Your task to perform on an android device: read, delete, or share a saved page in the chrome app Image 0: 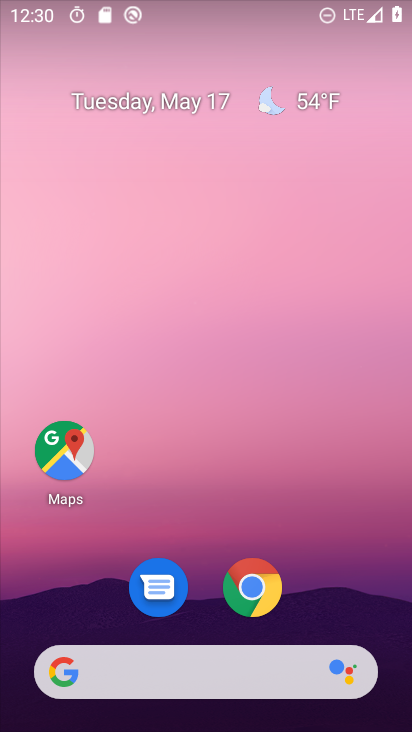
Step 0: drag from (182, 617) to (198, 155)
Your task to perform on an android device: read, delete, or share a saved page in the chrome app Image 1: 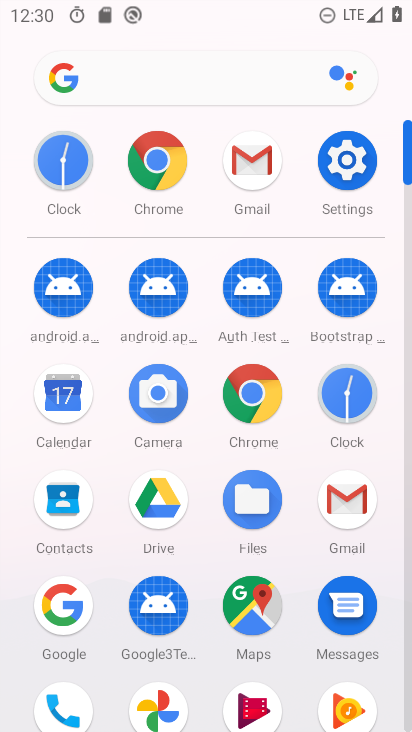
Step 1: drag from (203, 702) to (218, 346)
Your task to perform on an android device: read, delete, or share a saved page in the chrome app Image 2: 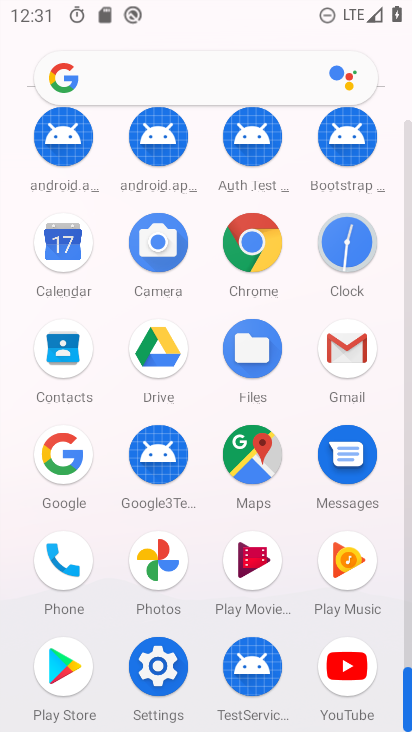
Step 2: click (246, 238)
Your task to perform on an android device: read, delete, or share a saved page in the chrome app Image 3: 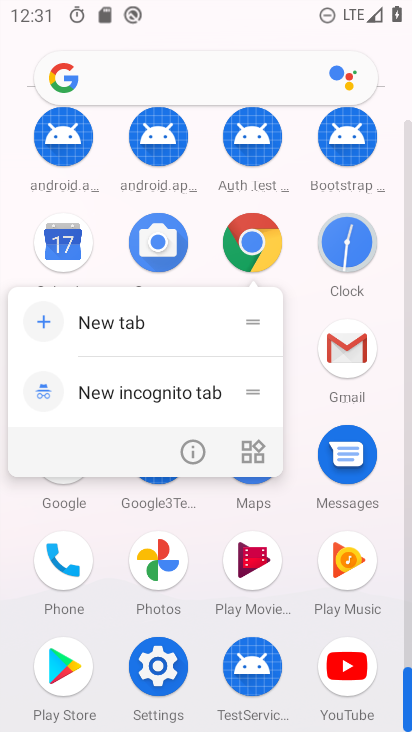
Step 3: click (189, 444)
Your task to perform on an android device: read, delete, or share a saved page in the chrome app Image 4: 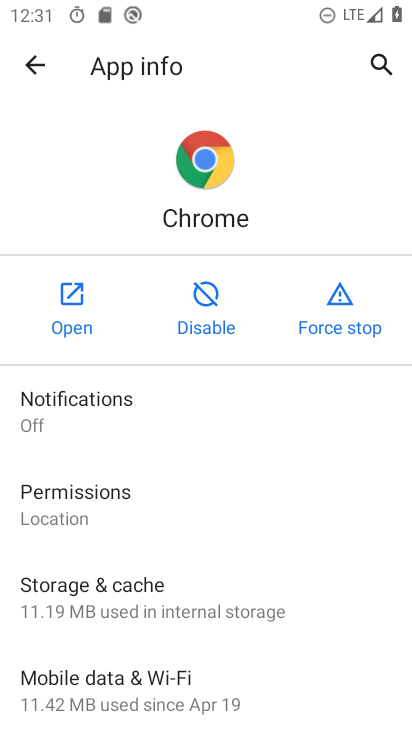
Step 4: click (65, 289)
Your task to perform on an android device: read, delete, or share a saved page in the chrome app Image 5: 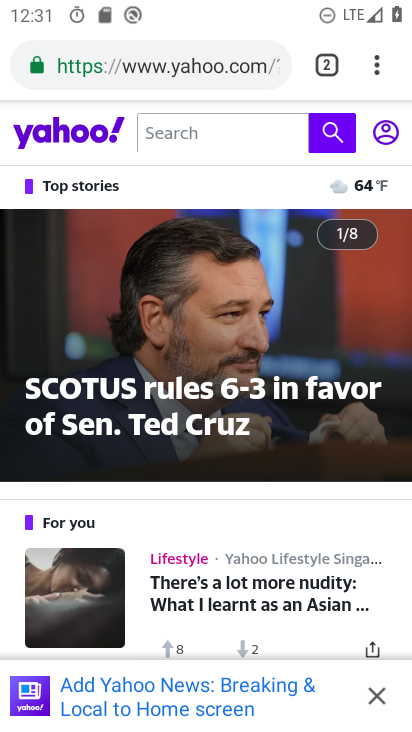
Step 5: drag from (272, 544) to (316, 298)
Your task to perform on an android device: read, delete, or share a saved page in the chrome app Image 6: 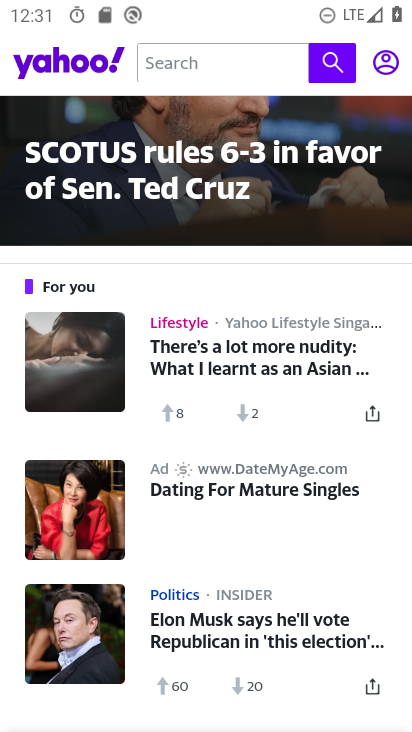
Step 6: drag from (273, 566) to (289, 441)
Your task to perform on an android device: read, delete, or share a saved page in the chrome app Image 7: 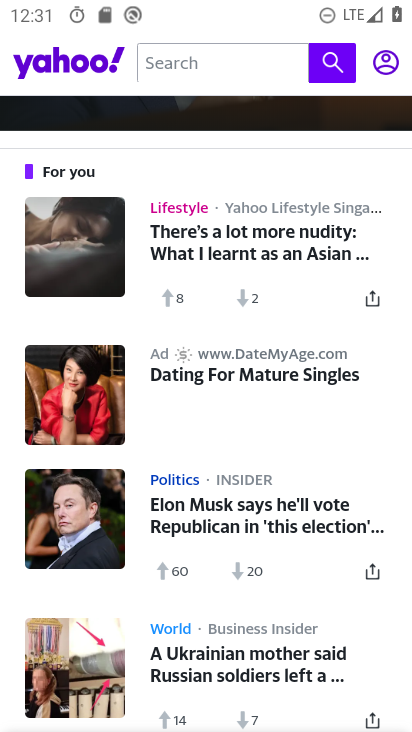
Step 7: drag from (249, 662) to (336, 333)
Your task to perform on an android device: read, delete, or share a saved page in the chrome app Image 8: 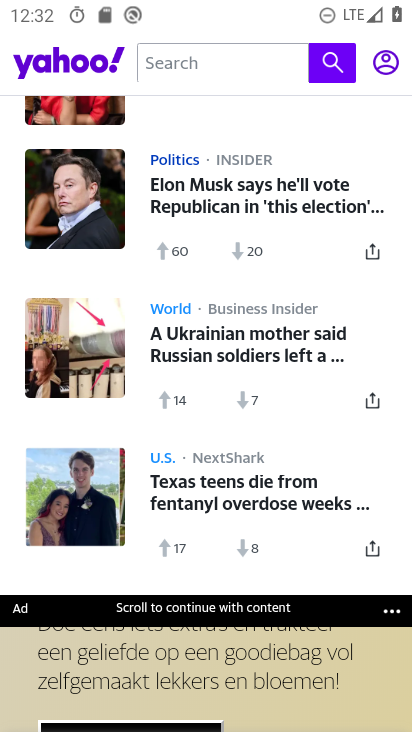
Step 8: drag from (216, 520) to (281, 198)
Your task to perform on an android device: read, delete, or share a saved page in the chrome app Image 9: 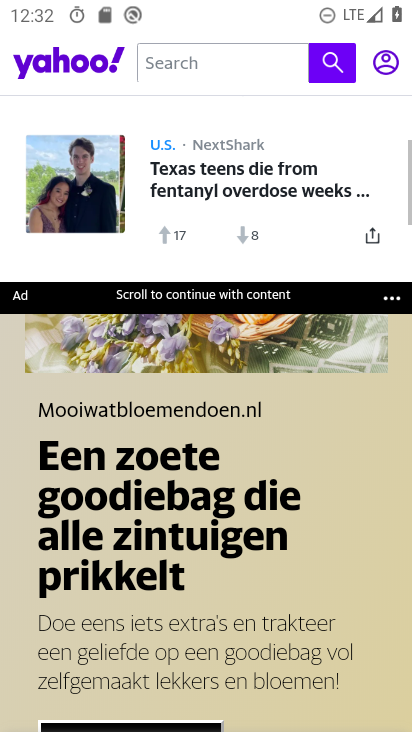
Step 9: drag from (285, 192) to (136, 728)
Your task to perform on an android device: read, delete, or share a saved page in the chrome app Image 10: 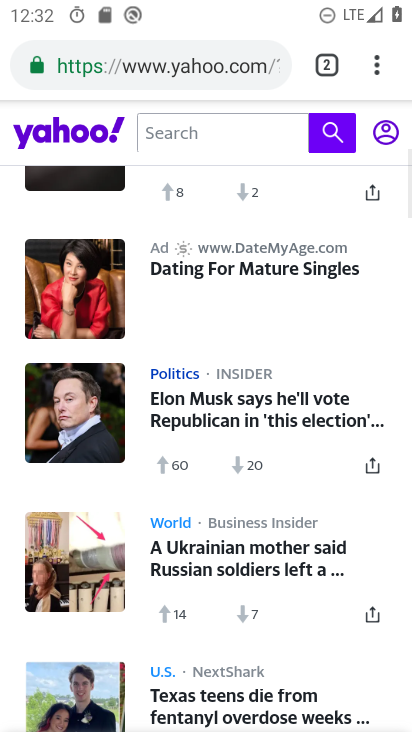
Step 10: drag from (215, 305) to (253, 671)
Your task to perform on an android device: read, delete, or share a saved page in the chrome app Image 11: 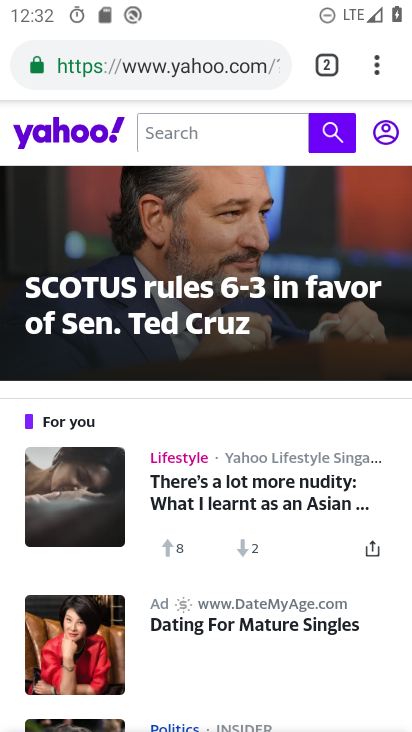
Step 11: drag from (233, 432) to (255, 703)
Your task to perform on an android device: read, delete, or share a saved page in the chrome app Image 12: 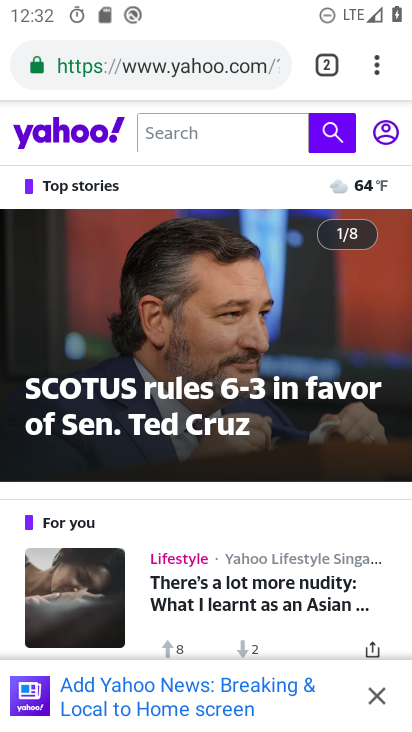
Step 12: click (382, 54)
Your task to perform on an android device: read, delete, or share a saved page in the chrome app Image 13: 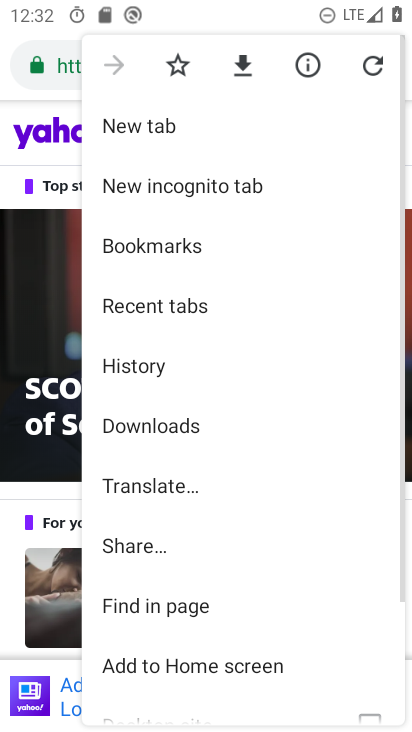
Step 13: drag from (230, 586) to (306, 20)
Your task to perform on an android device: read, delete, or share a saved page in the chrome app Image 14: 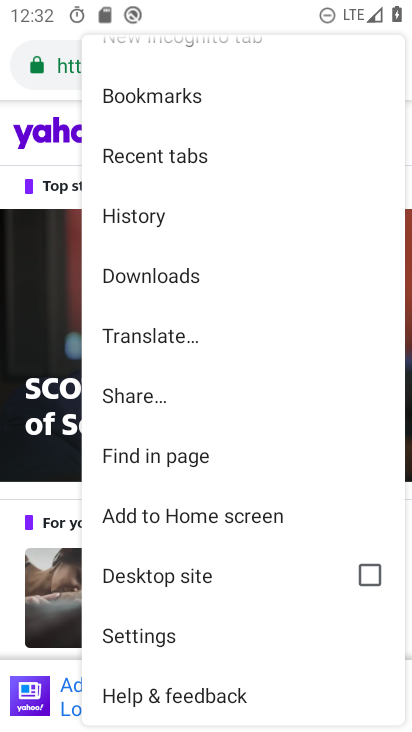
Step 14: click (162, 217)
Your task to perform on an android device: read, delete, or share a saved page in the chrome app Image 15: 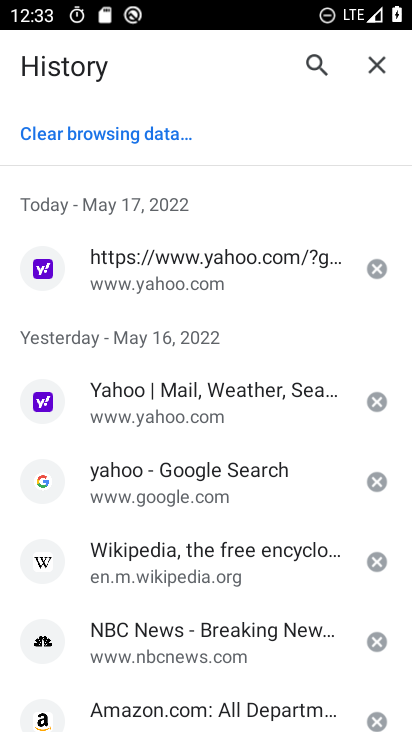
Step 15: task complete